Your task to perform on an android device: Open calendar and show me the third week of next month Image 0: 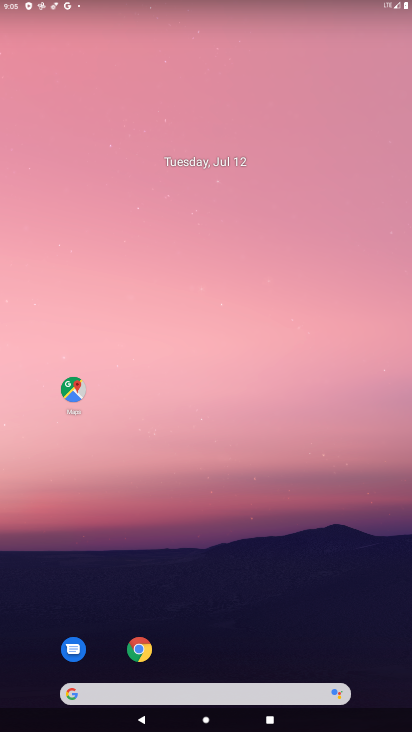
Step 0: drag from (328, 591) to (280, 150)
Your task to perform on an android device: Open calendar and show me the third week of next month Image 1: 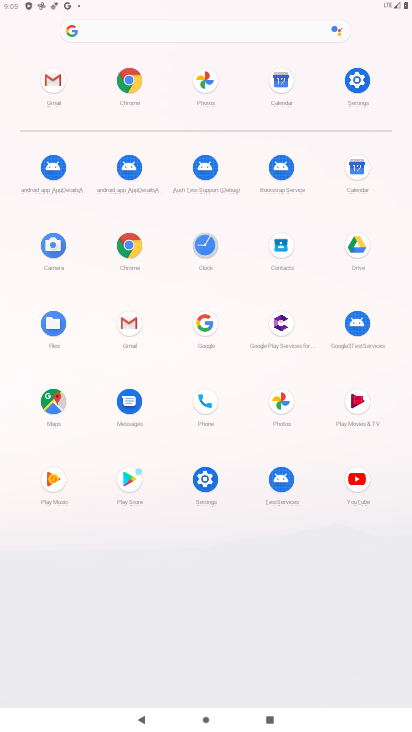
Step 1: click (349, 155)
Your task to perform on an android device: Open calendar and show me the third week of next month Image 2: 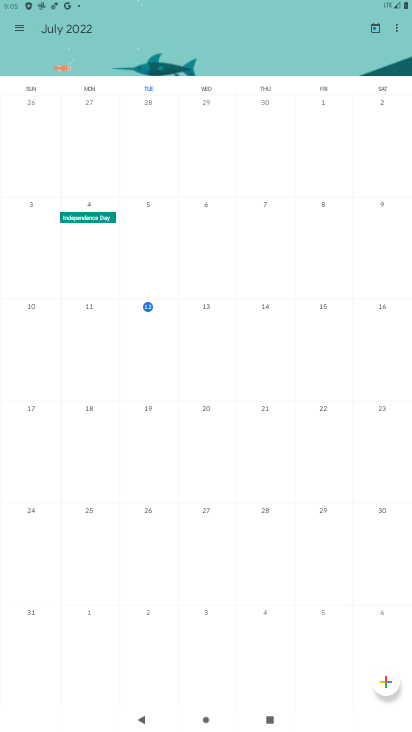
Step 2: task complete